Your task to perform on an android device: What is the recent news? Image 0: 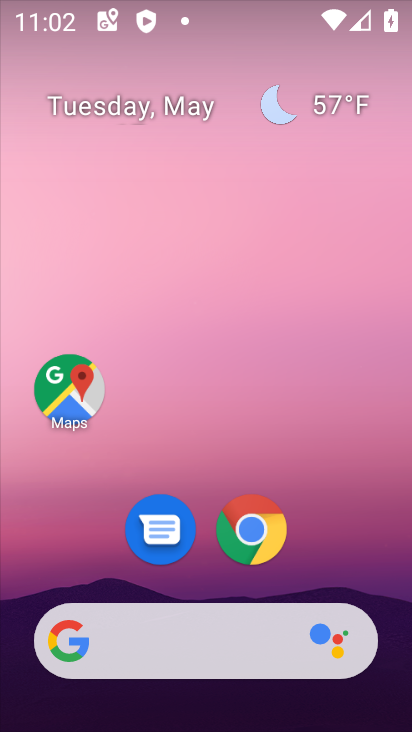
Step 0: click (193, 640)
Your task to perform on an android device: What is the recent news? Image 1: 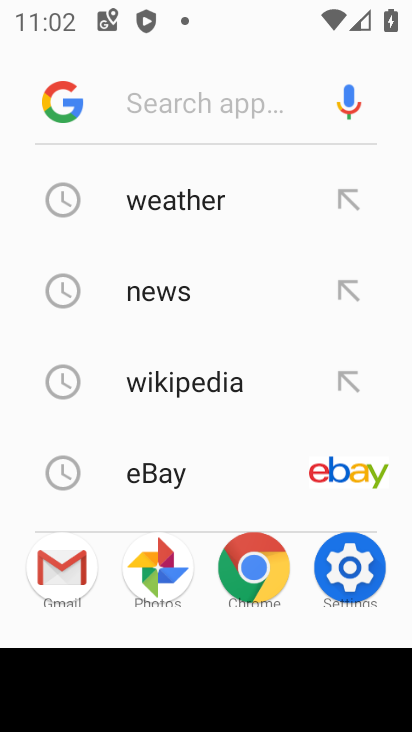
Step 1: click (193, 302)
Your task to perform on an android device: What is the recent news? Image 2: 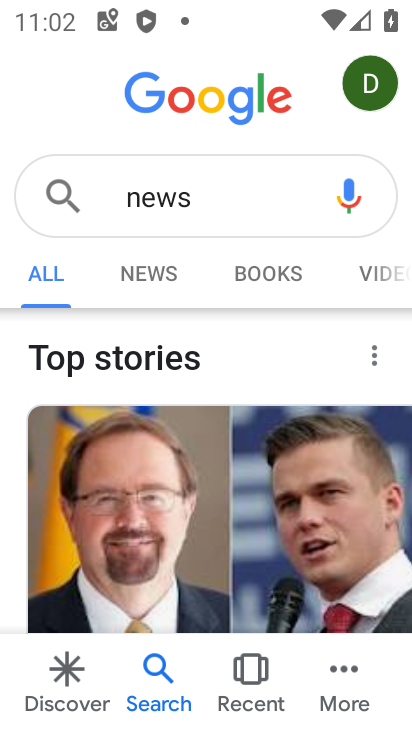
Step 2: click (133, 260)
Your task to perform on an android device: What is the recent news? Image 3: 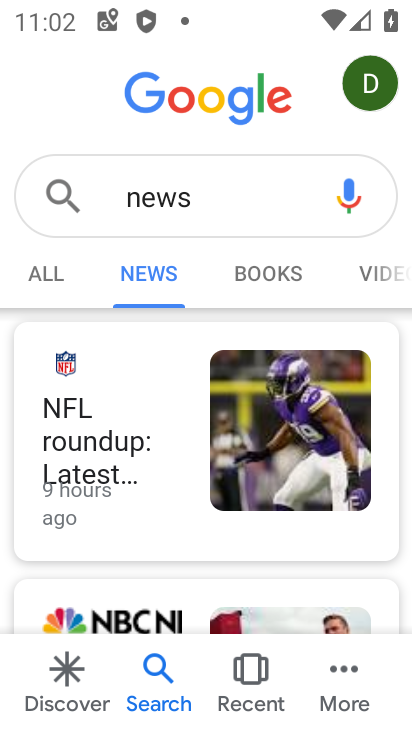
Step 3: task complete